Your task to perform on an android device: search for starred emails in the gmail app Image 0: 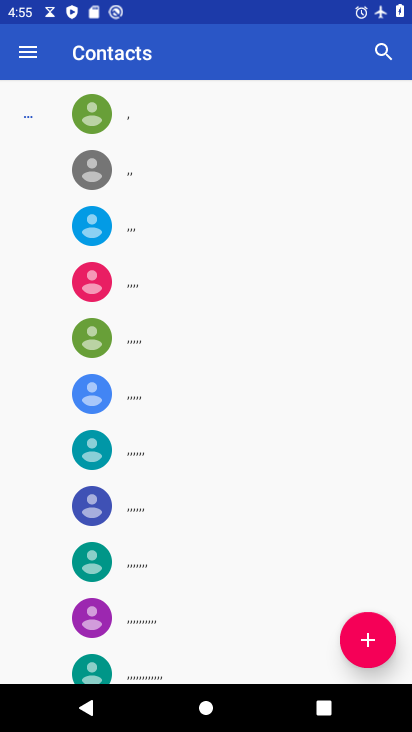
Step 0: press back button
Your task to perform on an android device: search for starred emails in the gmail app Image 1: 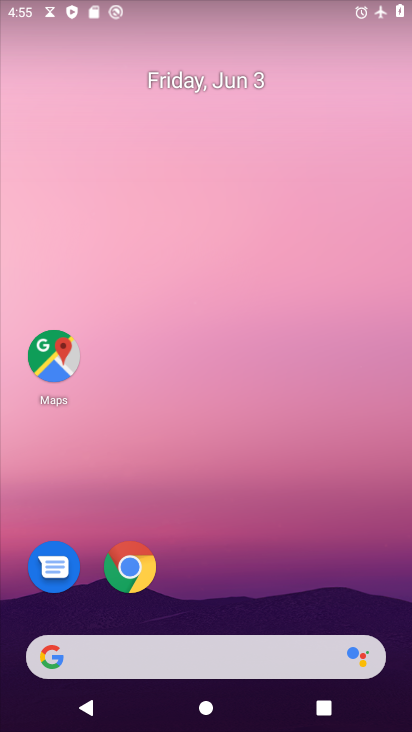
Step 1: drag from (220, 579) to (141, 192)
Your task to perform on an android device: search for starred emails in the gmail app Image 2: 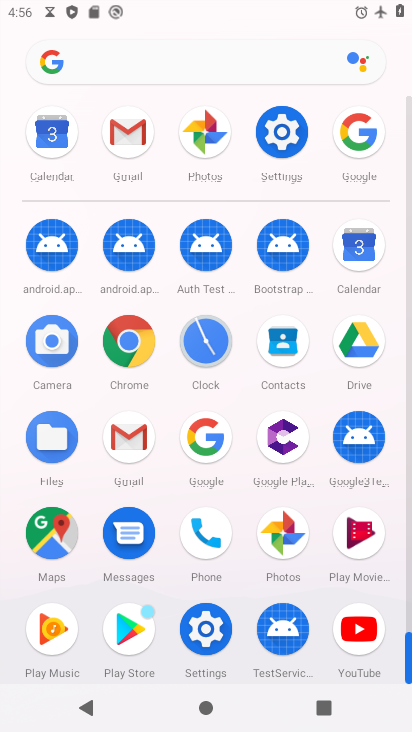
Step 2: click (129, 129)
Your task to perform on an android device: search for starred emails in the gmail app Image 3: 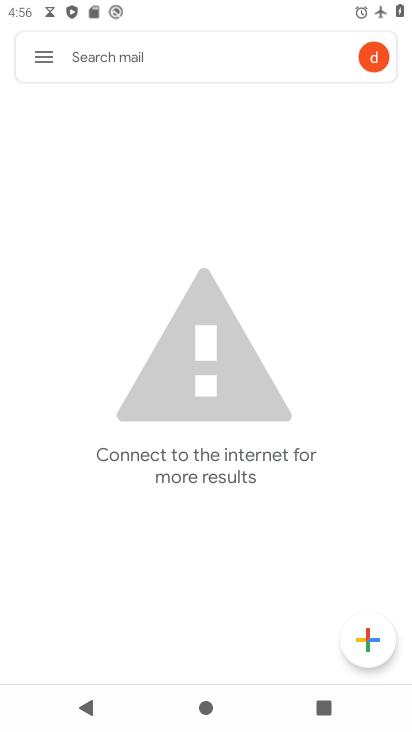
Step 3: click (40, 64)
Your task to perform on an android device: search for starred emails in the gmail app Image 4: 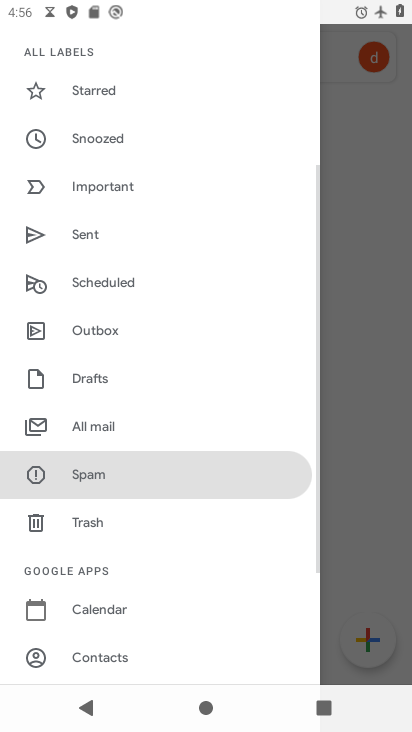
Step 4: drag from (84, 156) to (67, 285)
Your task to perform on an android device: search for starred emails in the gmail app Image 5: 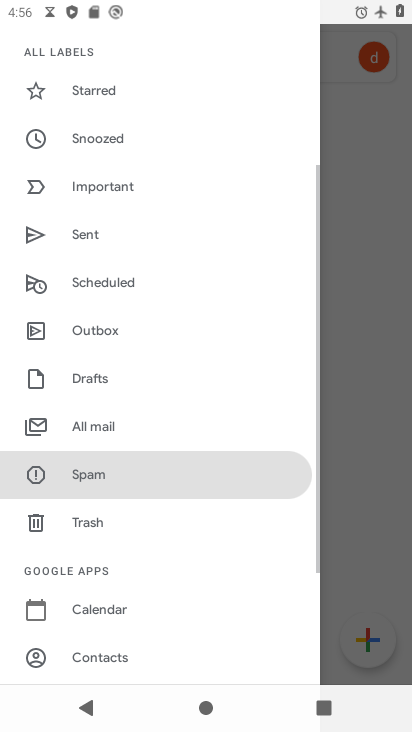
Step 5: click (71, 100)
Your task to perform on an android device: search for starred emails in the gmail app Image 6: 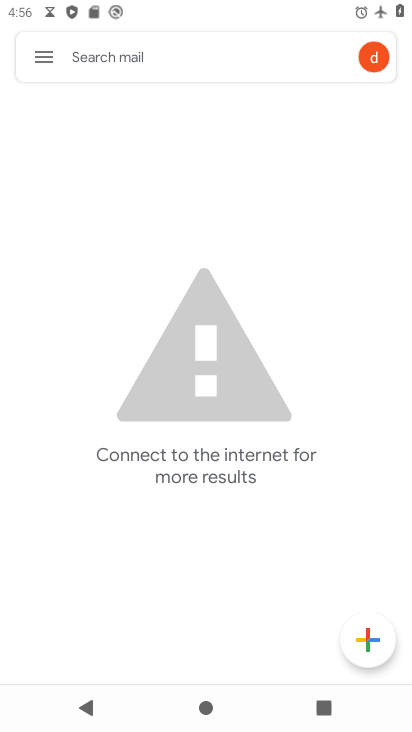
Step 6: click (40, 50)
Your task to perform on an android device: search for starred emails in the gmail app Image 7: 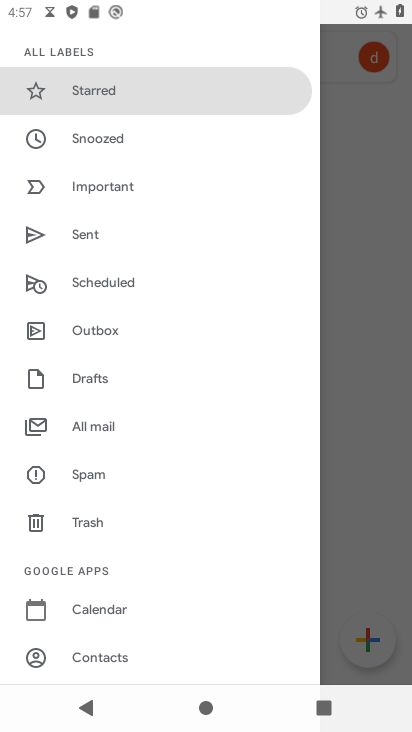
Step 7: task complete